Your task to perform on an android device: Do I have any events today? Image 0: 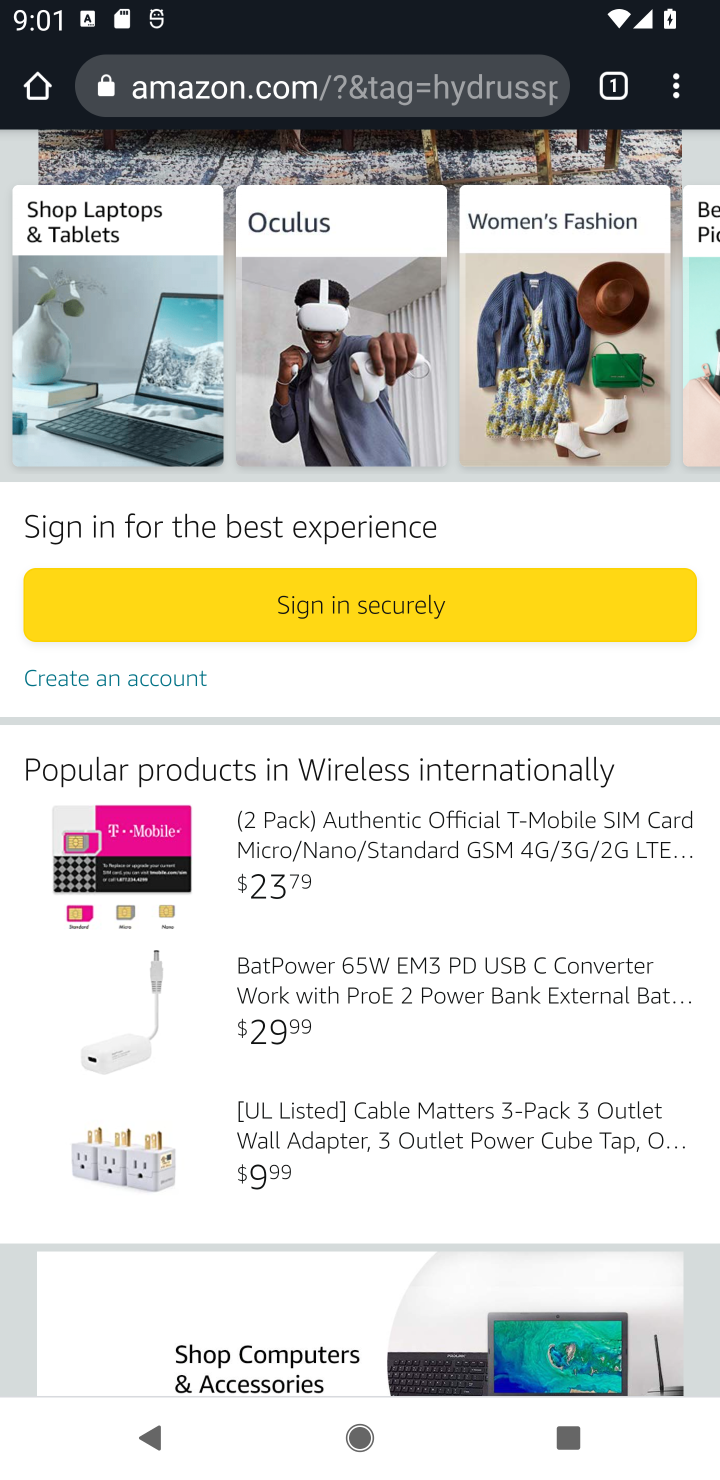
Step 0: press home button
Your task to perform on an android device: Do I have any events today? Image 1: 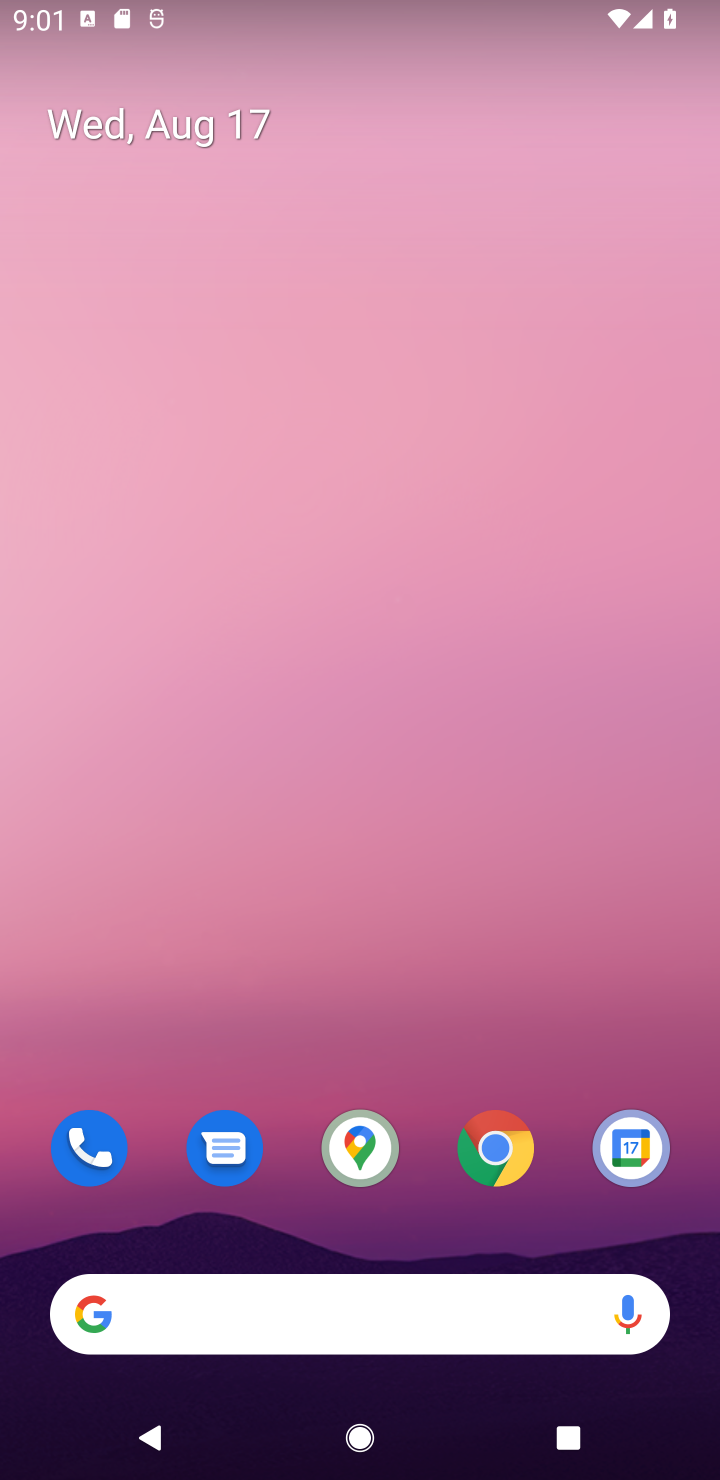
Step 1: drag from (15, 687) to (635, 693)
Your task to perform on an android device: Do I have any events today? Image 2: 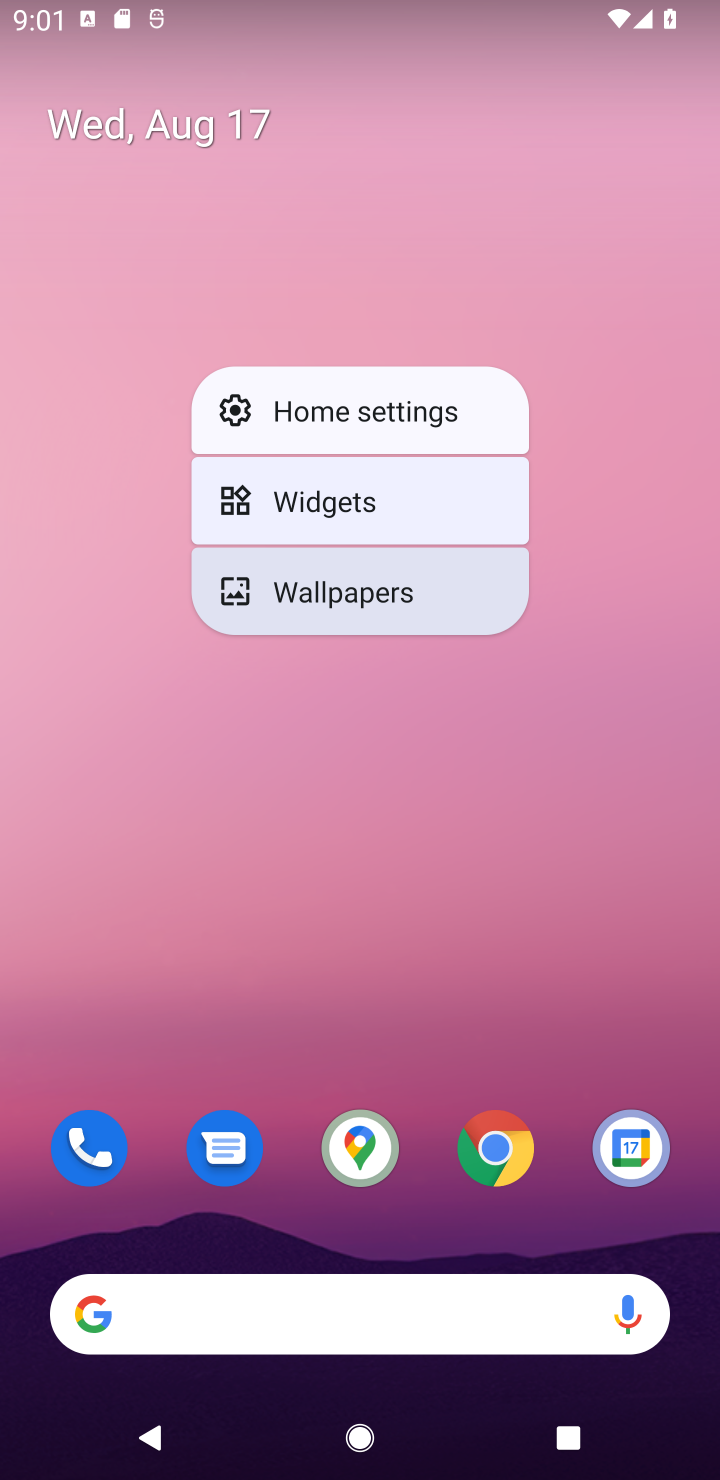
Step 2: click (628, 773)
Your task to perform on an android device: Do I have any events today? Image 3: 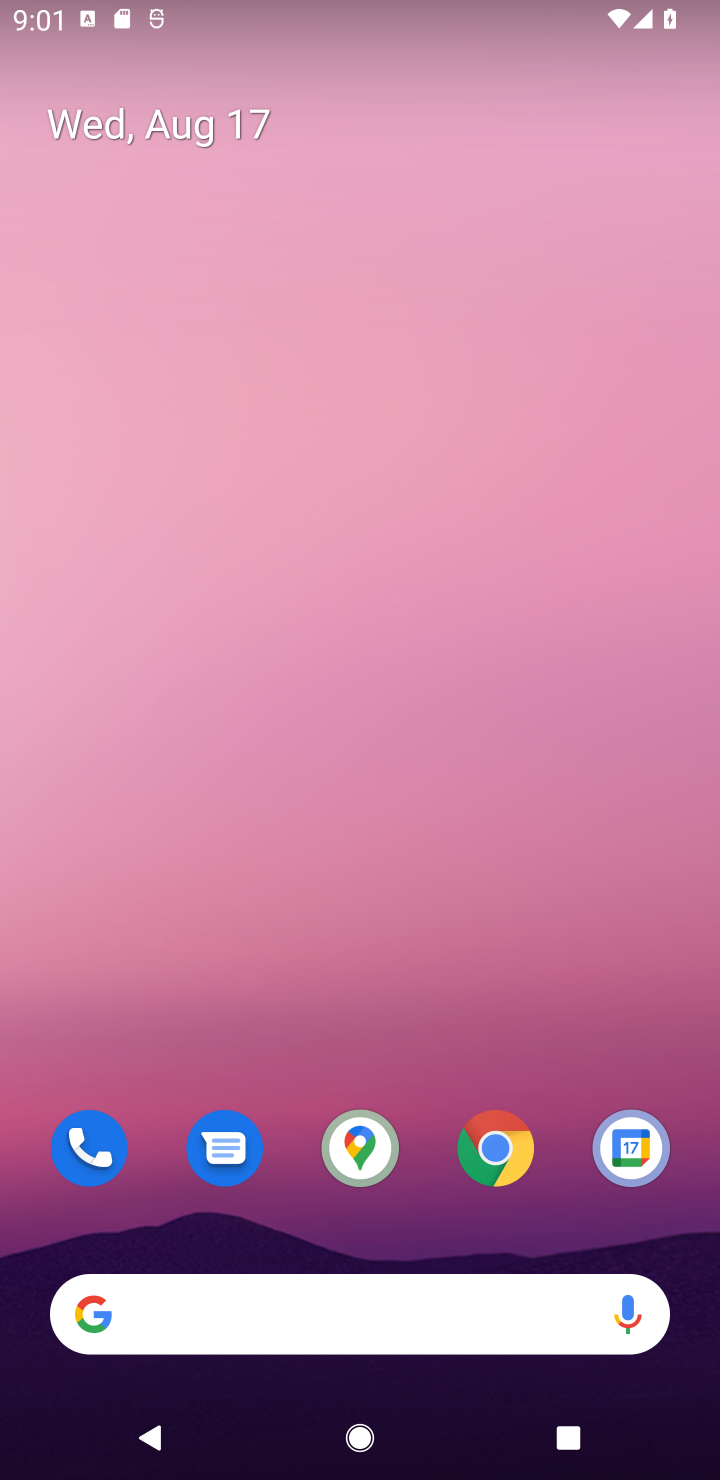
Step 3: task complete